Your task to perform on an android device: open app "Speedtest by Ookla" Image 0: 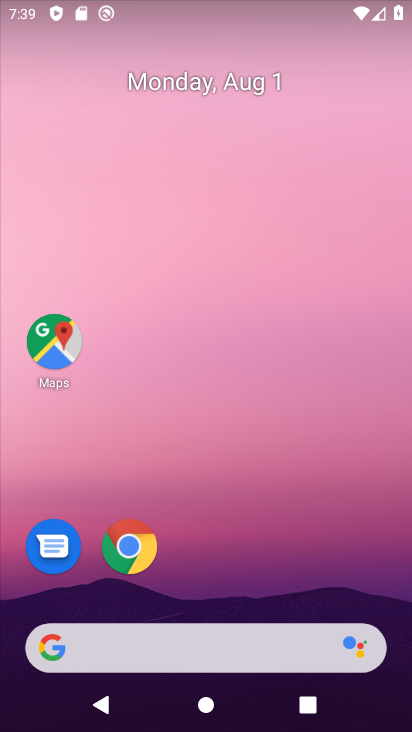
Step 0: drag from (221, 567) to (229, 45)
Your task to perform on an android device: open app "Speedtest by Ookla" Image 1: 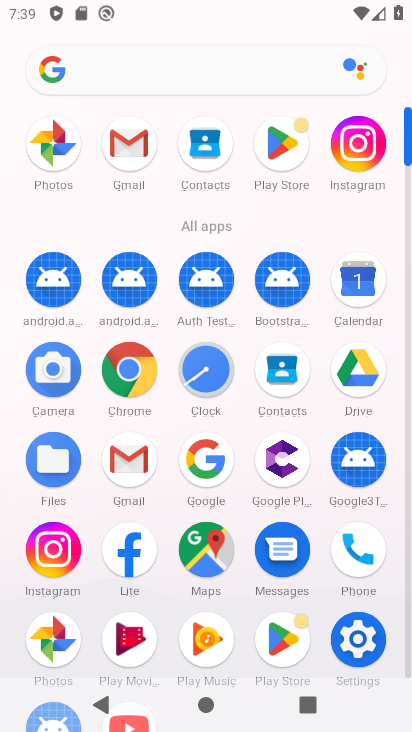
Step 1: click (273, 144)
Your task to perform on an android device: open app "Speedtest by Ookla" Image 2: 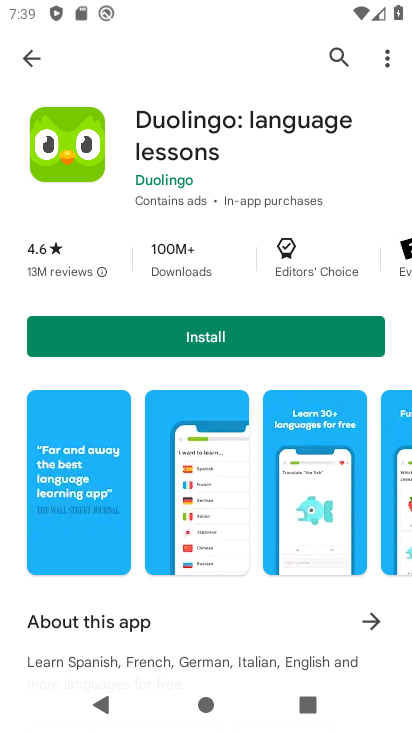
Step 2: click (36, 57)
Your task to perform on an android device: open app "Speedtest by Ookla" Image 3: 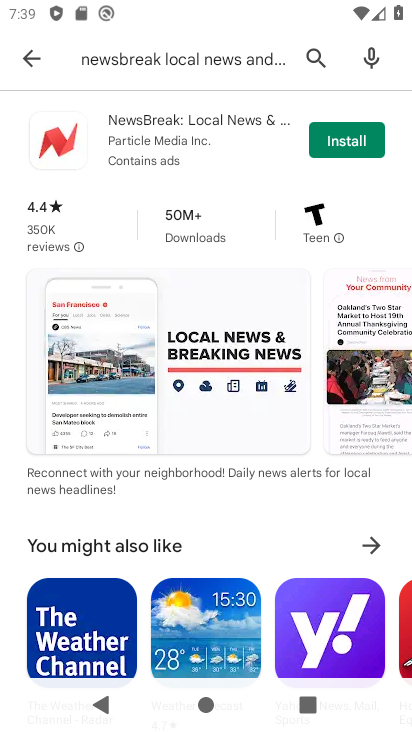
Step 3: click (296, 63)
Your task to perform on an android device: open app "Speedtest by Ookla" Image 4: 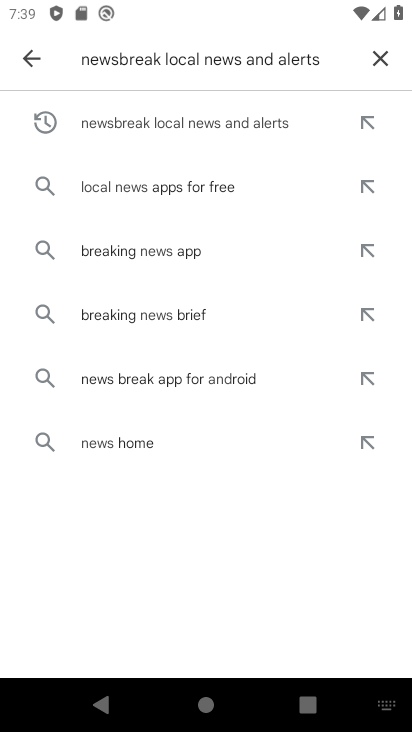
Step 4: click (376, 58)
Your task to perform on an android device: open app "Speedtest by Ookla" Image 5: 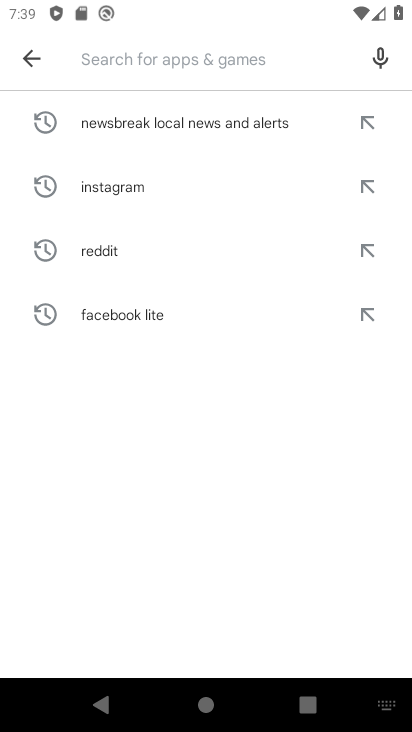
Step 5: type "speedtest by ookla"
Your task to perform on an android device: open app "Speedtest by Ookla" Image 6: 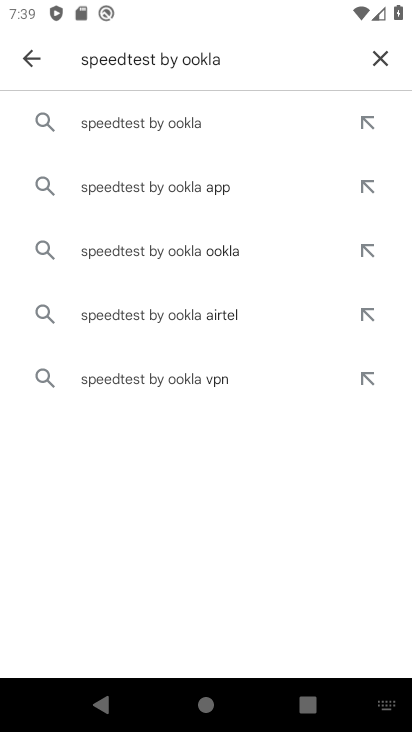
Step 6: click (174, 128)
Your task to perform on an android device: open app "Speedtest by Ookla" Image 7: 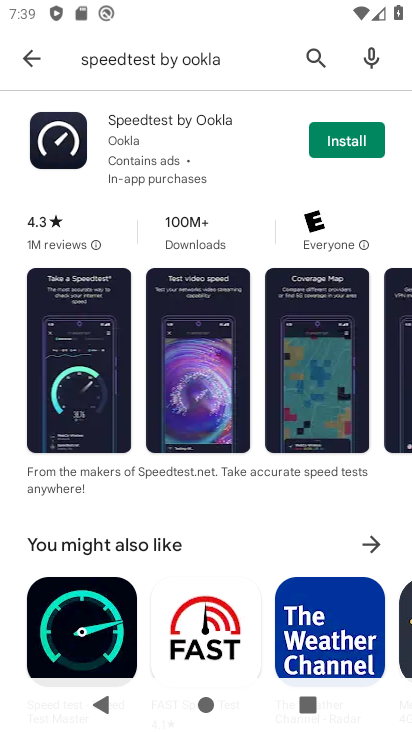
Step 7: task complete